Your task to perform on an android device: turn on javascript in the chrome app Image 0: 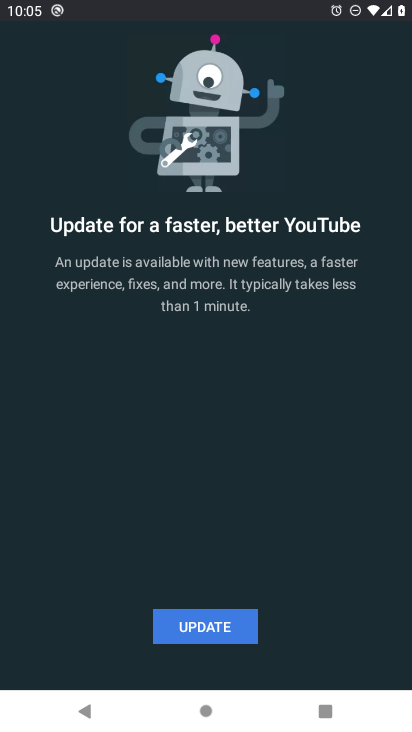
Step 0: press home button
Your task to perform on an android device: turn on javascript in the chrome app Image 1: 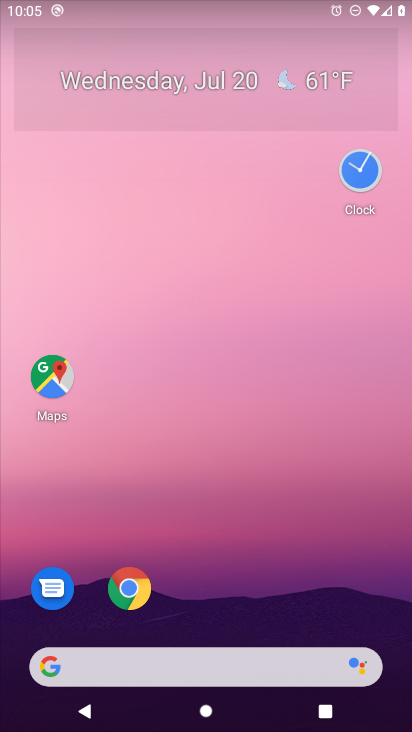
Step 1: click (147, 594)
Your task to perform on an android device: turn on javascript in the chrome app Image 2: 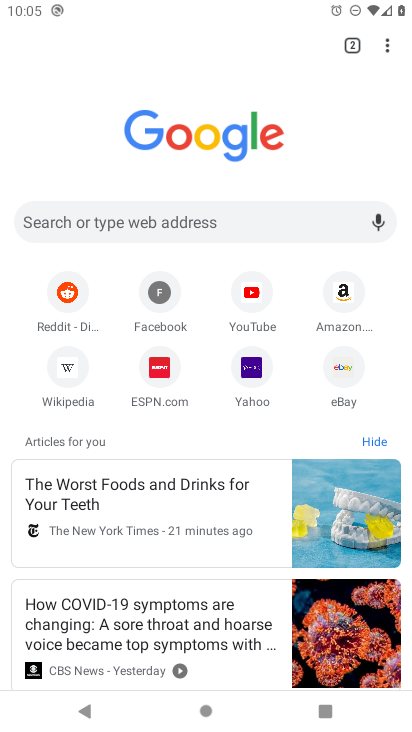
Step 2: click (384, 49)
Your task to perform on an android device: turn on javascript in the chrome app Image 3: 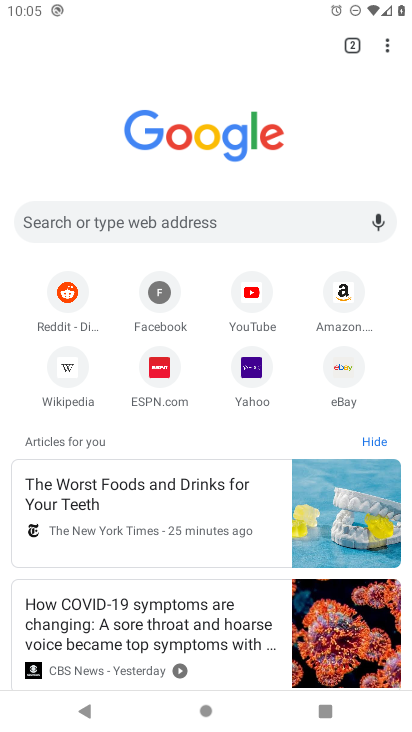
Step 3: click (384, 49)
Your task to perform on an android device: turn on javascript in the chrome app Image 4: 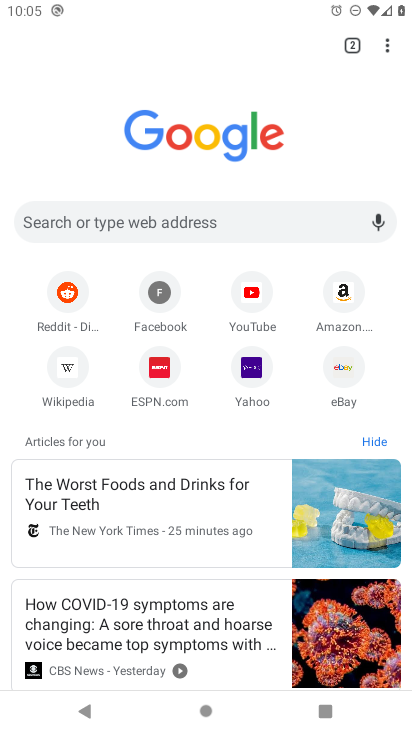
Step 4: click (388, 43)
Your task to perform on an android device: turn on javascript in the chrome app Image 5: 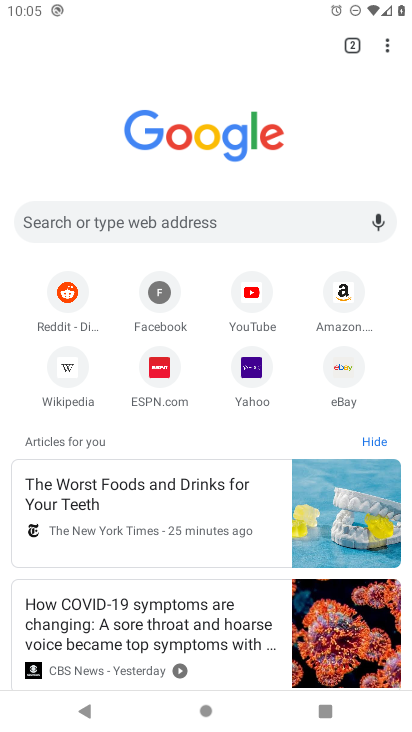
Step 5: click (387, 43)
Your task to perform on an android device: turn on javascript in the chrome app Image 6: 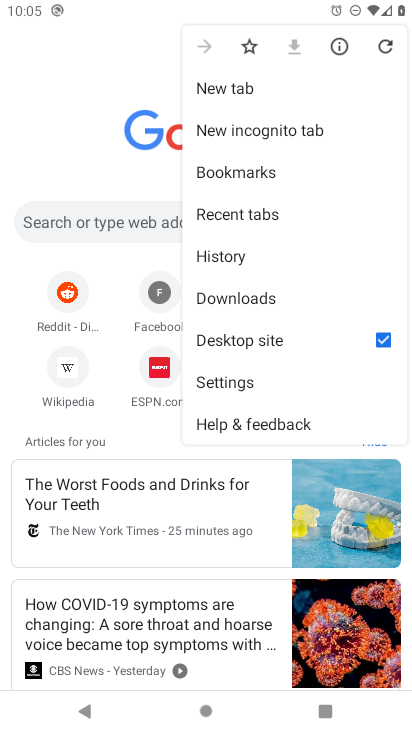
Step 6: click (240, 367)
Your task to perform on an android device: turn on javascript in the chrome app Image 7: 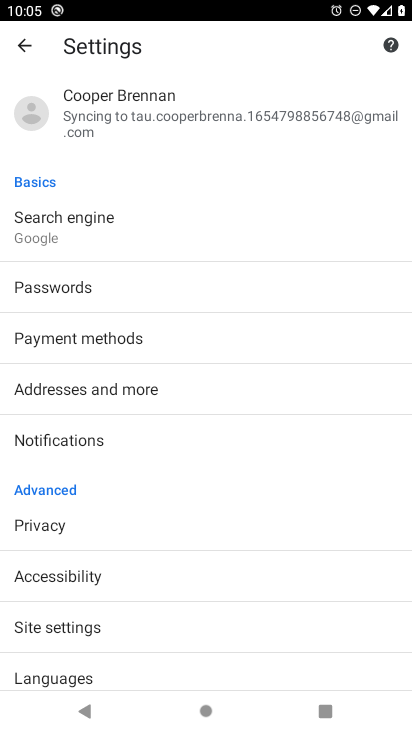
Step 7: click (79, 622)
Your task to perform on an android device: turn on javascript in the chrome app Image 8: 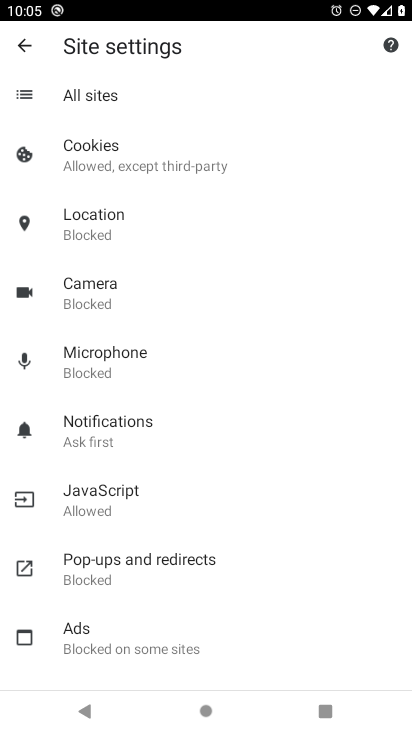
Step 8: click (118, 509)
Your task to perform on an android device: turn on javascript in the chrome app Image 9: 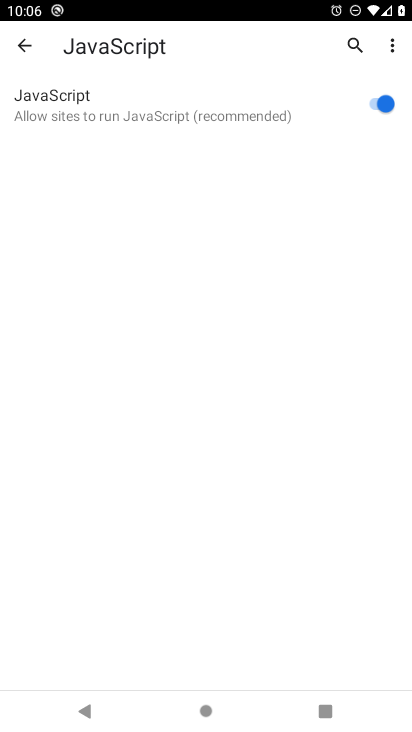
Step 9: task complete